Your task to perform on an android device: turn on the 24-hour format for clock Image 0: 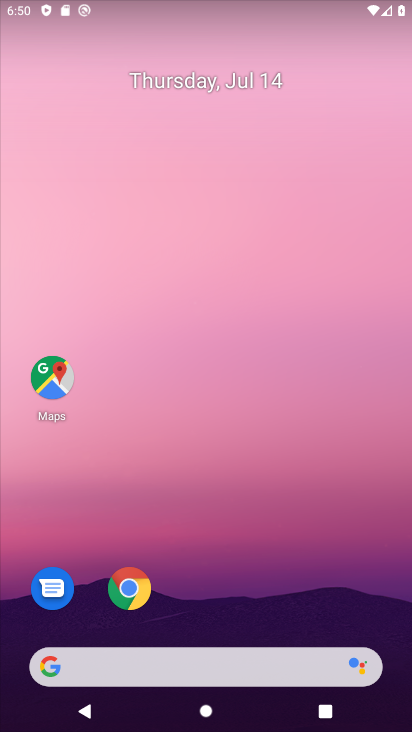
Step 0: drag from (381, 625) to (256, 9)
Your task to perform on an android device: turn on the 24-hour format for clock Image 1: 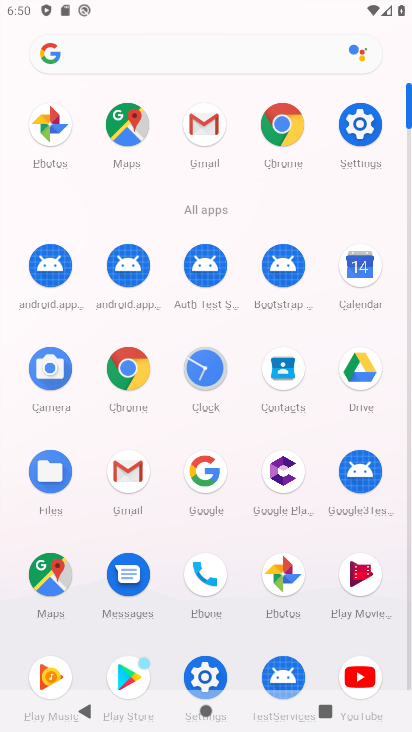
Step 1: click (217, 373)
Your task to perform on an android device: turn on the 24-hour format for clock Image 2: 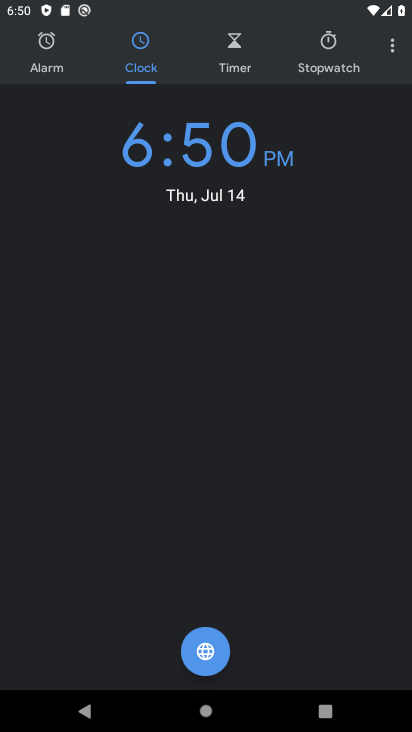
Step 2: click (399, 40)
Your task to perform on an android device: turn on the 24-hour format for clock Image 3: 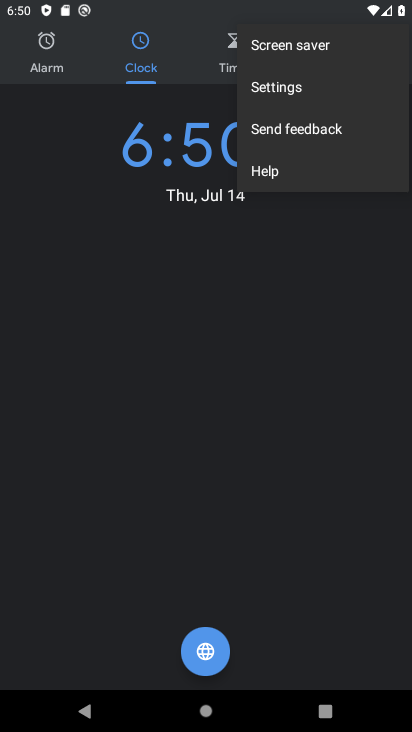
Step 3: click (322, 90)
Your task to perform on an android device: turn on the 24-hour format for clock Image 4: 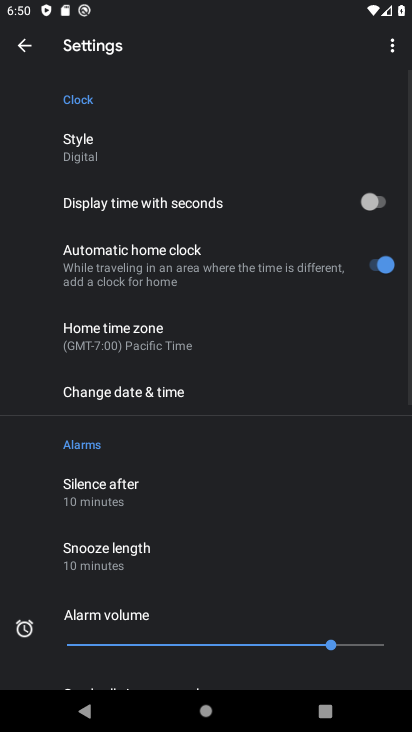
Step 4: click (94, 405)
Your task to perform on an android device: turn on the 24-hour format for clock Image 5: 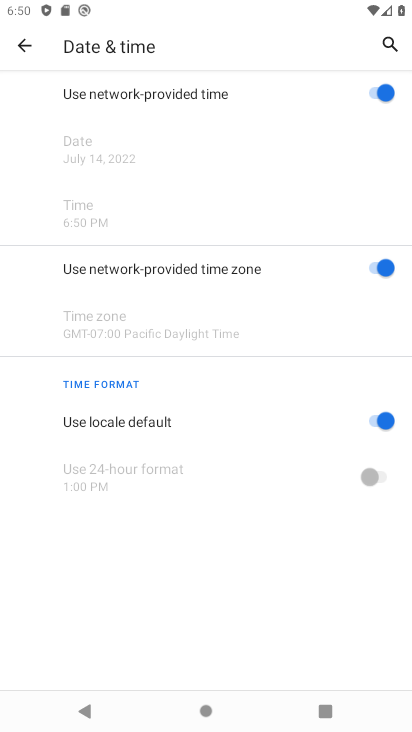
Step 5: task complete